Your task to perform on an android device: check battery use Image 0: 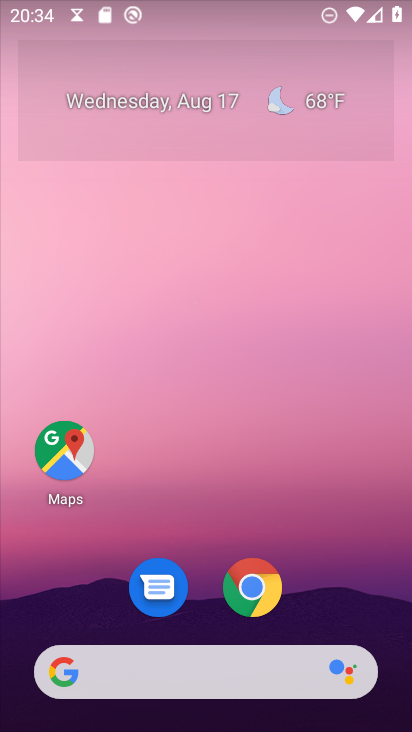
Step 0: click (309, 337)
Your task to perform on an android device: check battery use Image 1: 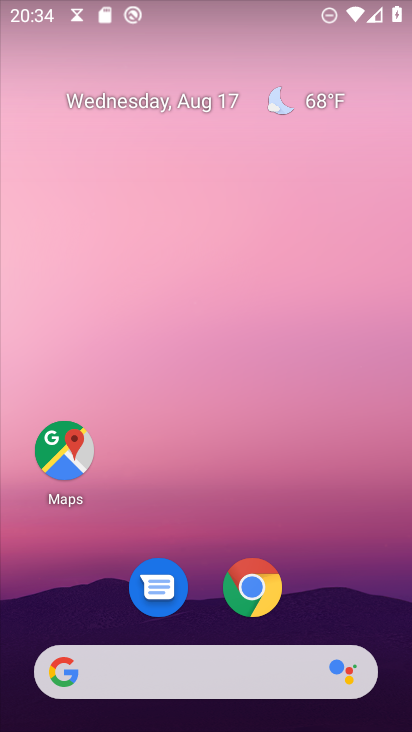
Step 1: drag from (24, 688) to (139, 373)
Your task to perform on an android device: check battery use Image 2: 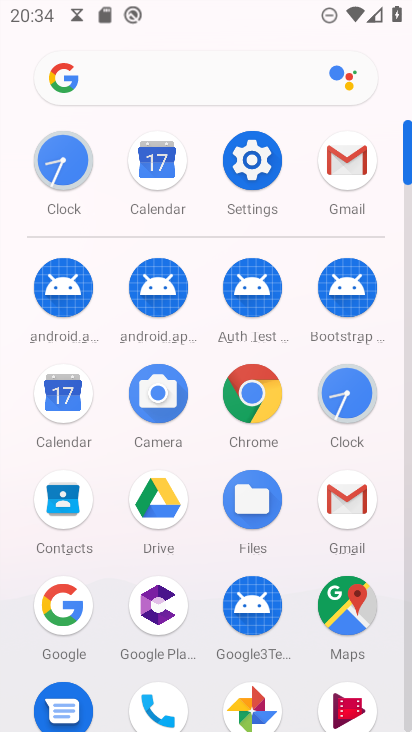
Step 2: click (243, 156)
Your task to perform on an android device: check battery use Image 3: 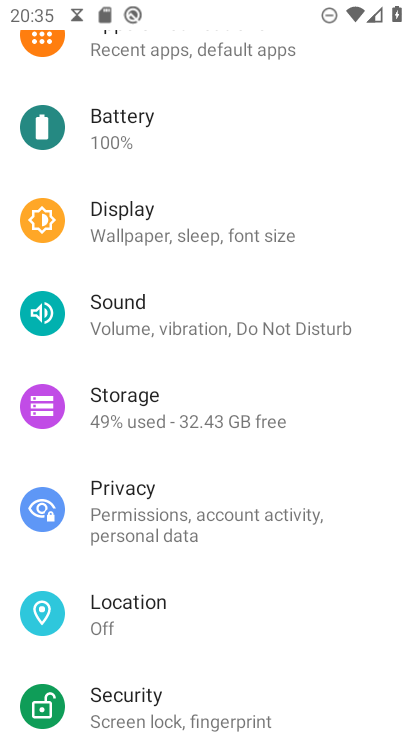
Step 3: click (112, 131)
Your task to perform on an android device: check battery use Image 4: 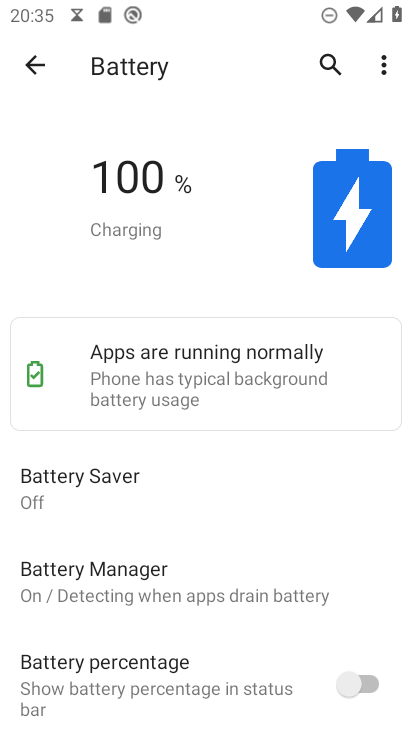
Step 4: task complete